Your task to perform on an android device: open a bookmark in the chrome app Image 0: 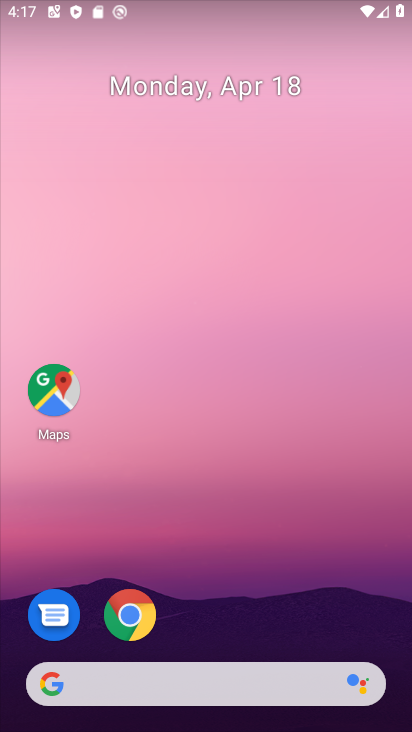
Step 0: click (140, 613)
Your task to perform on an android device: open a bookmark in the chrome app Image 1: 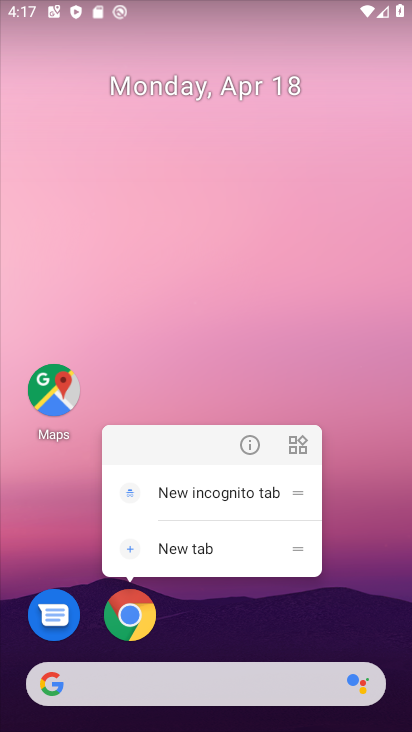
Step 1: click (140, 612)
Your task to perform on an android device: open a bookmark in the chrome app Image 2: 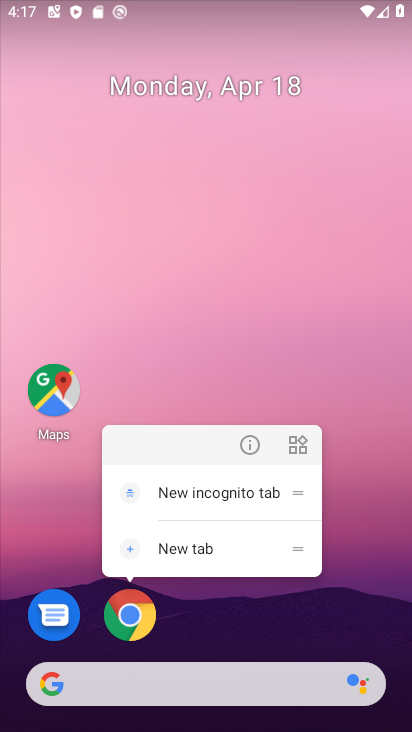
Step 2: click (140, 612)
Your task to perform on an android device: open a bookmark in the chrome app Image 3: 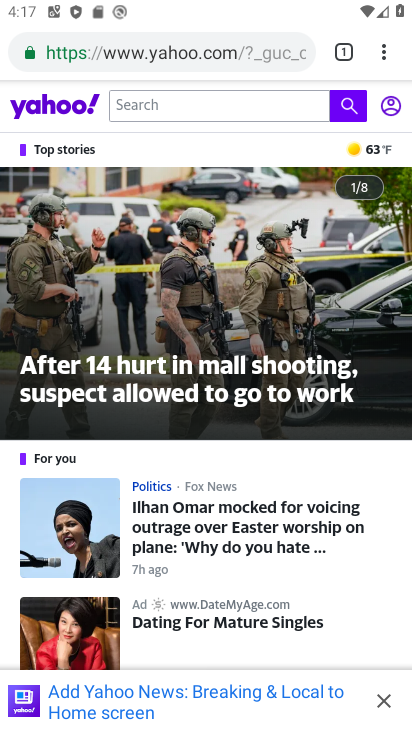
Step 3: click (383, 54)
Your task to perform on an android device: open a bookmark in the chrome app Image 4: 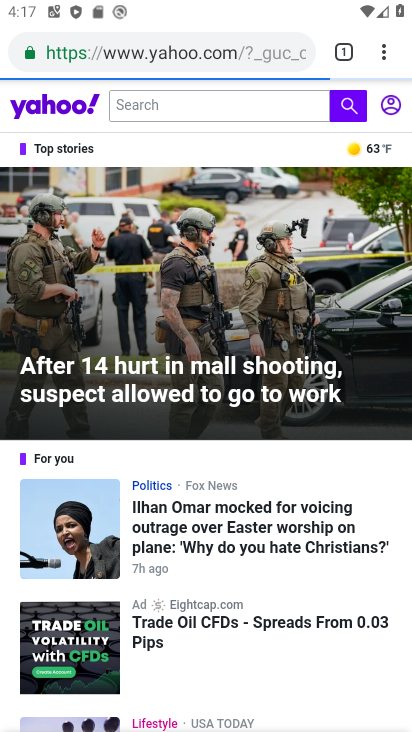
Step 4: click (383, 54)
Your task to perform on an android device: open a bookmark in the chrome app Image 5: 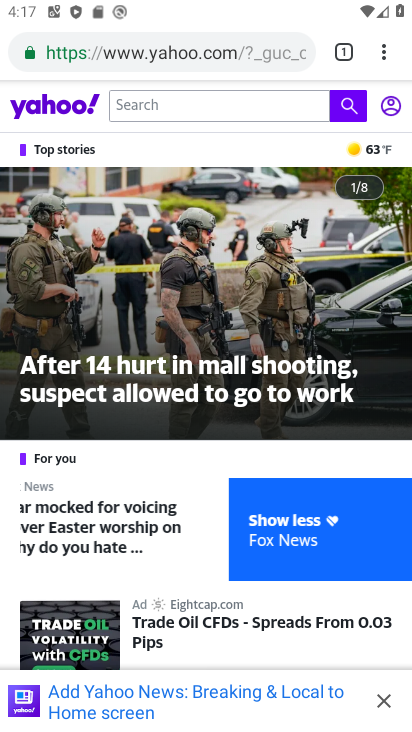
Step 5: click (384, 54)
Your task to perform on an android device: open a bookmark in the chrome app Image 6: 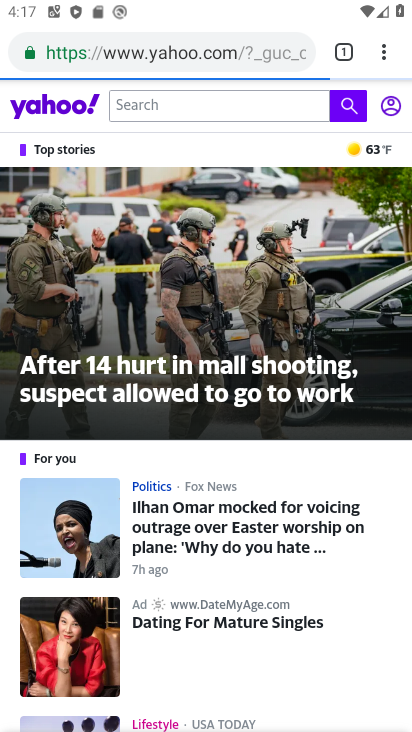
Step 6: click (384, 60)
Your task to perform on an android device: open a bookmark in the chrome app Image 7: 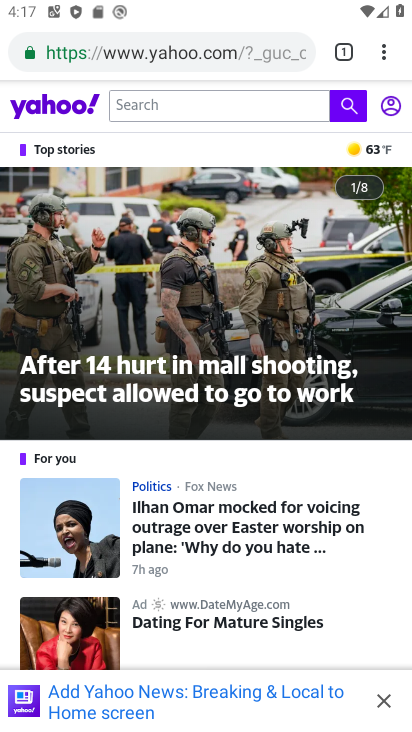
Step 7: click (387, 49)
Your task to perform on an android device: open a bookmark in the chrome app Image 8: 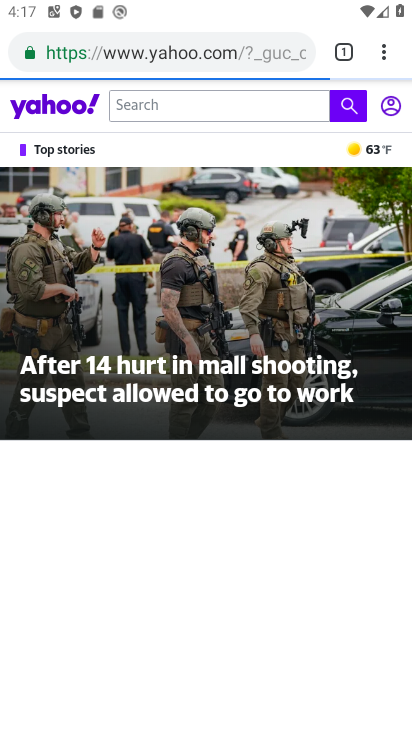
Step 8: click (382, 61)
Your task to perform on an android device: open a bookmark in the chrome app Image 9: 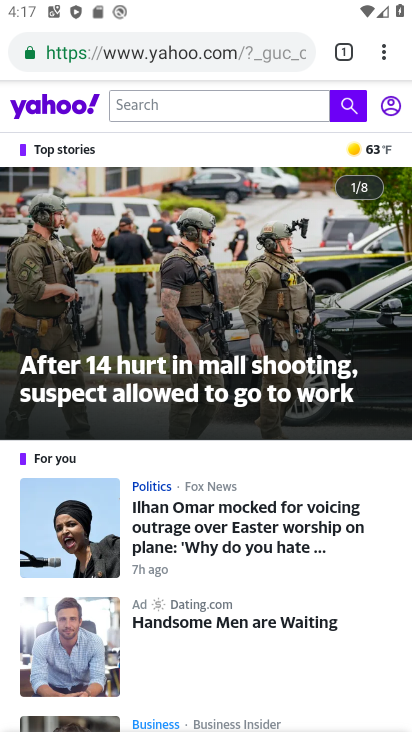
Step 9: click (382, 61)
Your task to perform on an android device: open a bookmark in the chrome app Image 10: 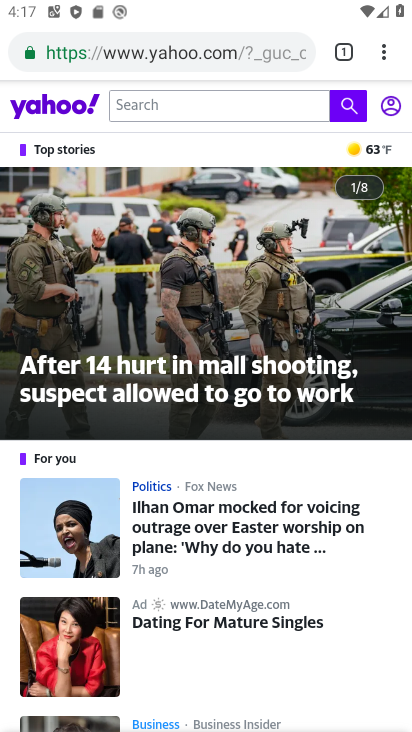
Step 10: click (382, 61)
Your task to perform on an android device: open a bookmark in the chrome app Image 11: 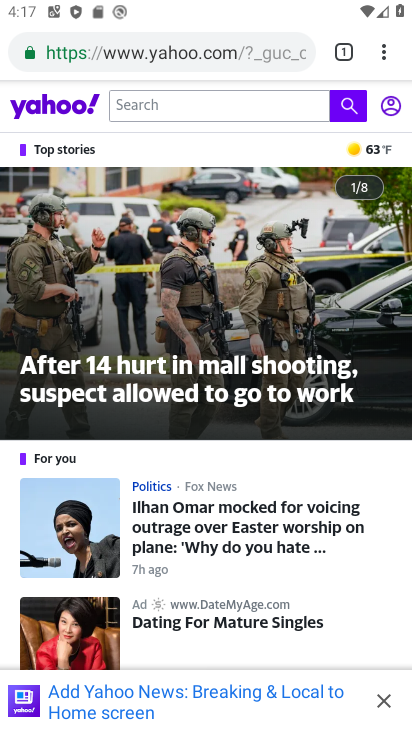
Step 11: click (381, 61)
Your task to perform on an android device: open a bookmark in the chrome app Image 12: 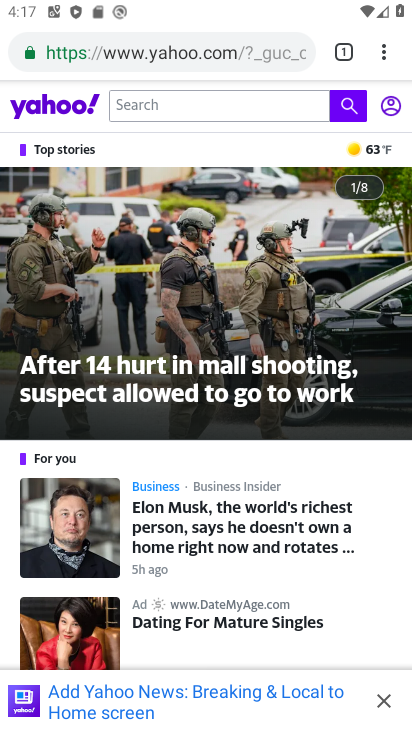
Step 12: click (380, 55)
Your task to perform on an android device: open a bookmark in the chrome app Image 13: 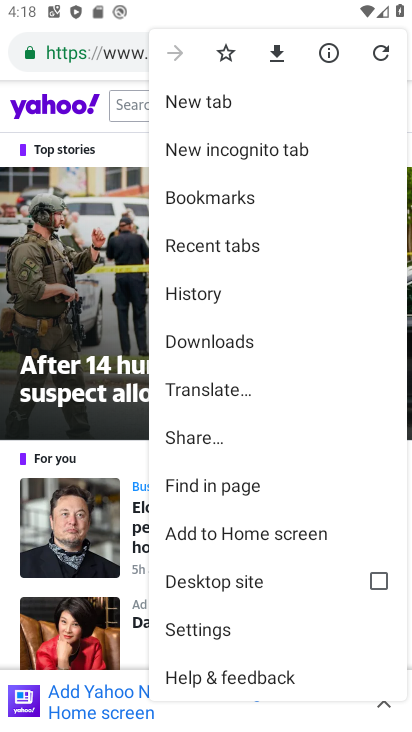
Step 13: click (218, 193)
Your task to perform on an android device: open a bookmark in the chrome app Image 14: 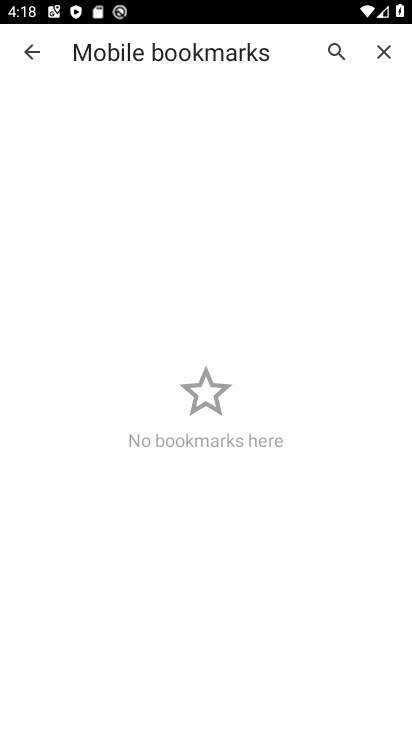
Step 14: task complete